Your task to perform on an android device: empty trash in the gmail app Image 0: 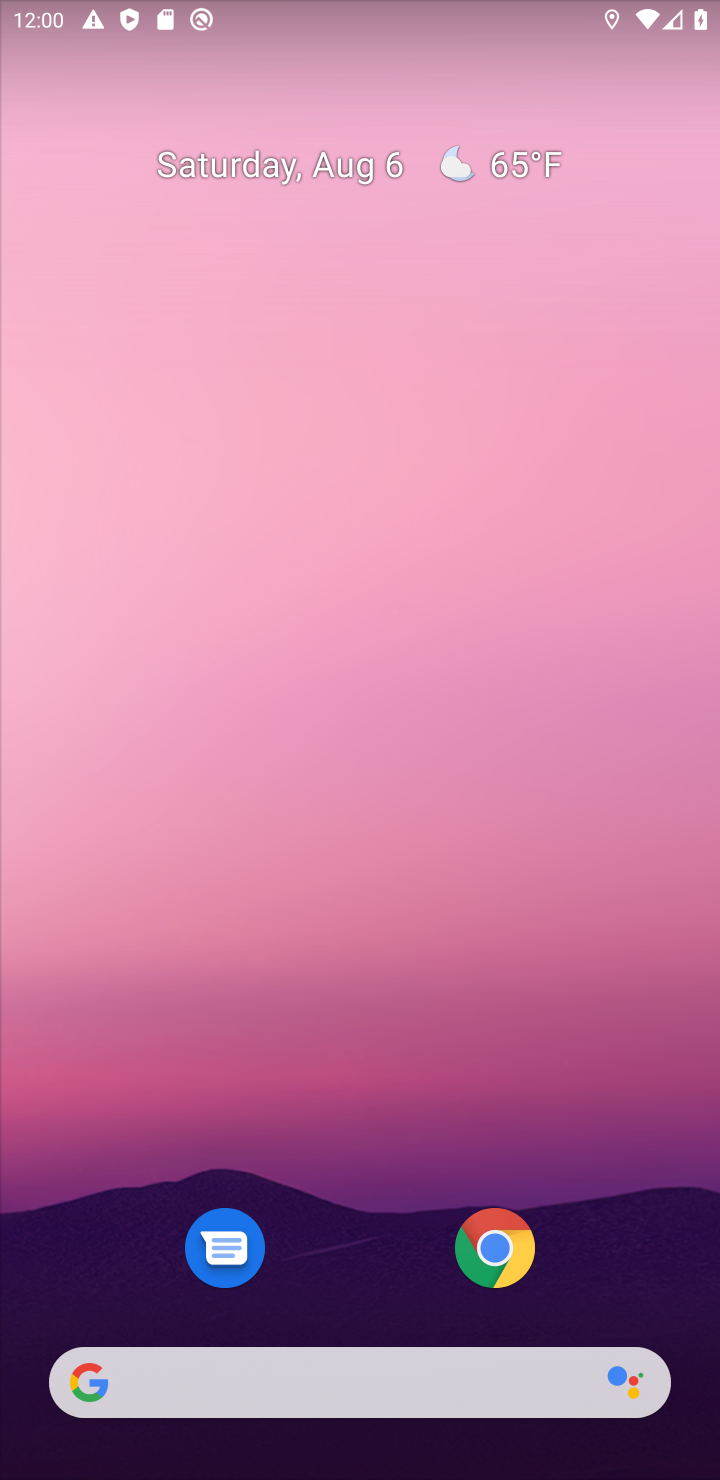
Step 0: drag from (363, 1294) to (463, 207)
Your task to perform on an android device: empty trash in the gmail app Image 1: 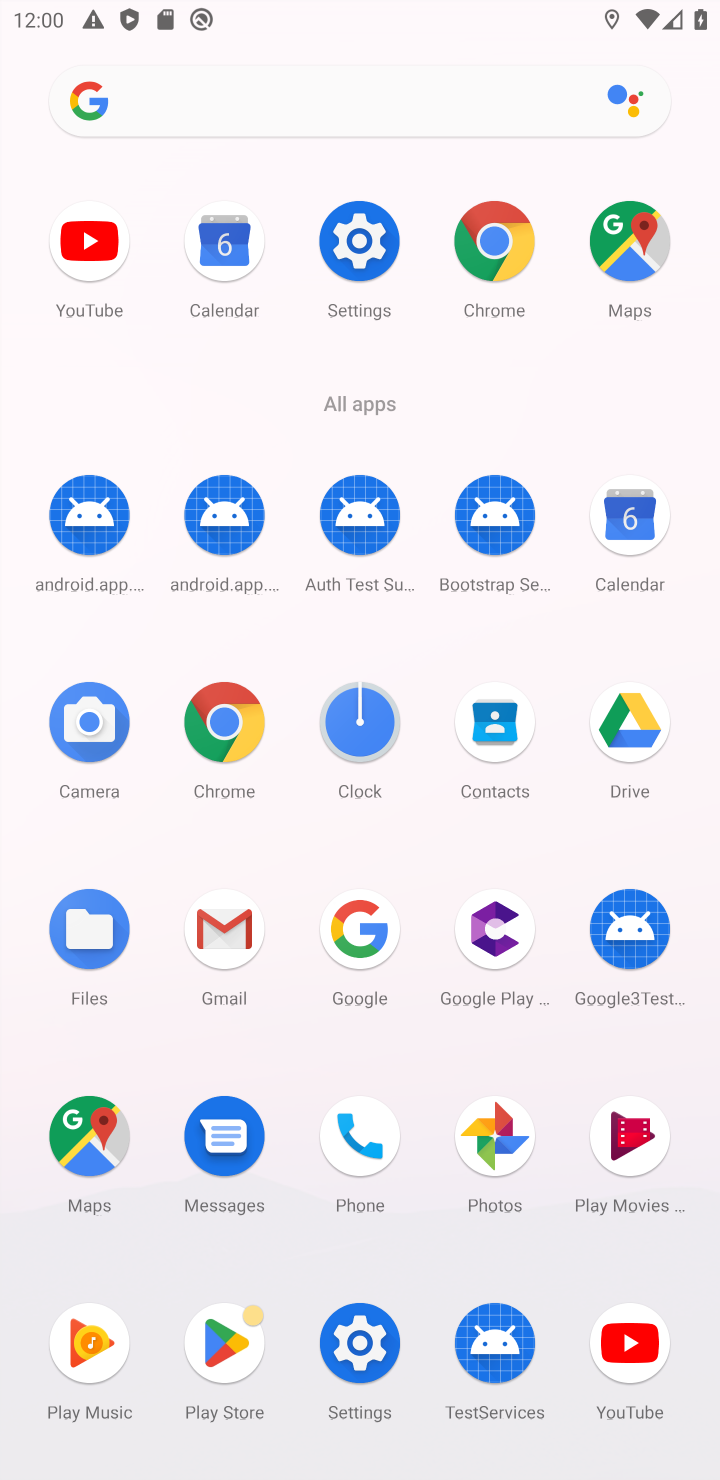
Step 1: click (217, 915)
Your task to perform on an android device: empty trash in the gmail app Image 2: 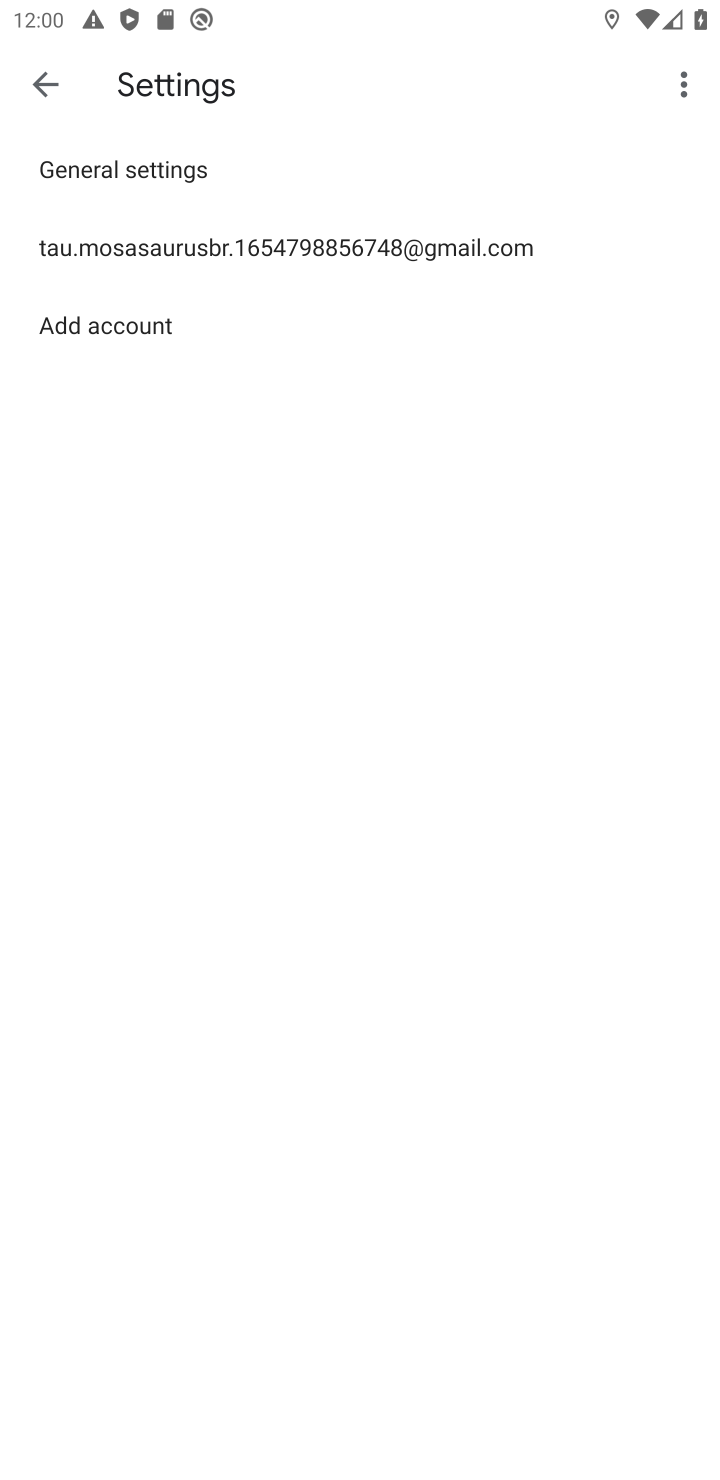
Step 2: click (50, 83)
Your task to perform on an android device: empty trash in the gmail app Image 3: 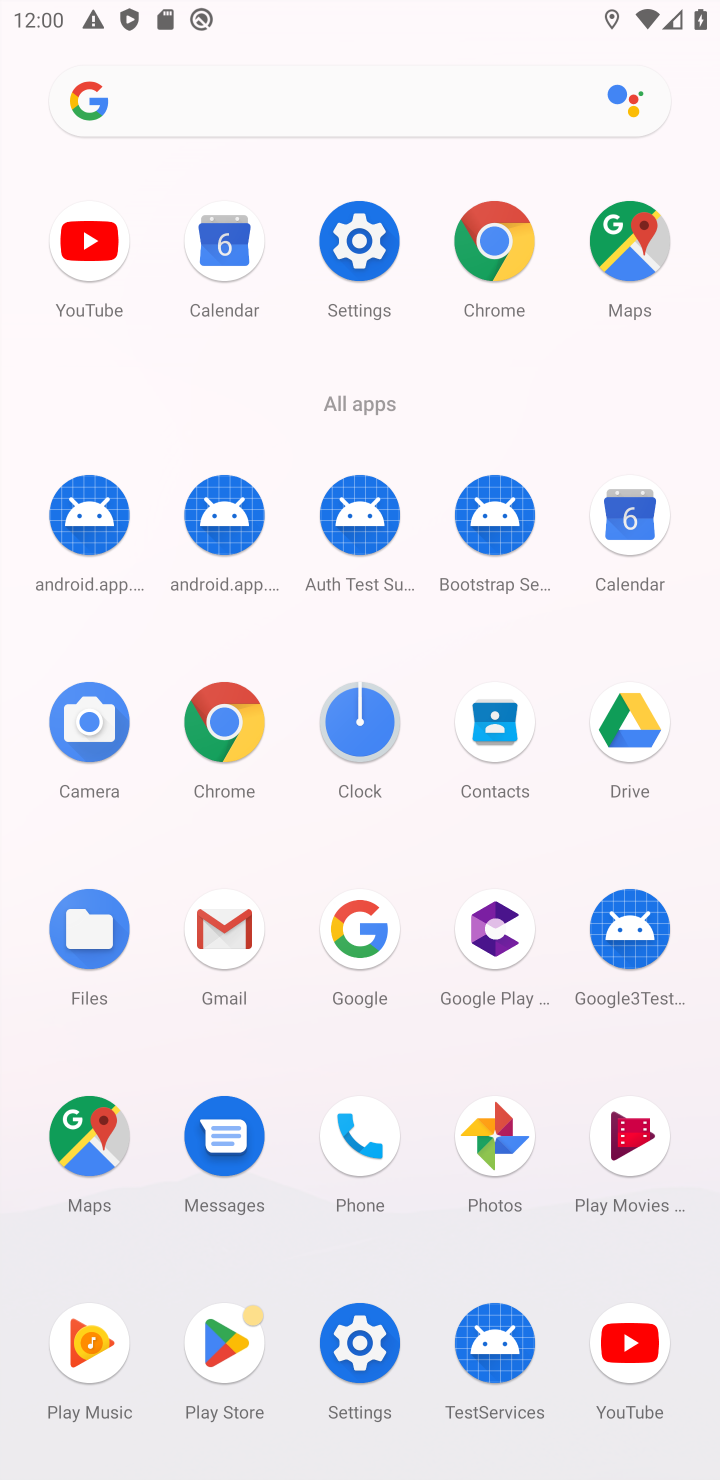
Step 3: click (205, 939)
Your task to perform on an android device: empty trash in the gmail app Image 4: 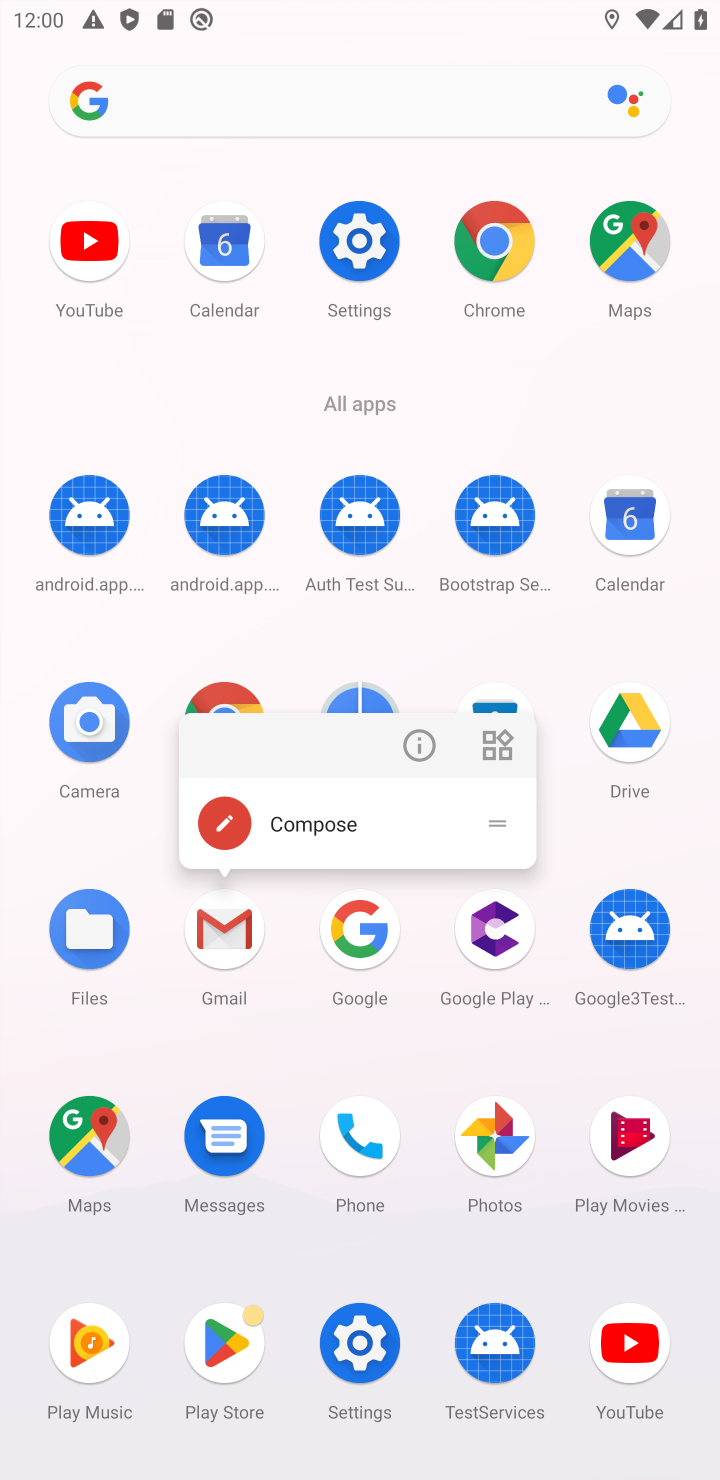
Step 4: click (225, 927)
Your task to perform on an android device: empty trash in the gmail app Image 5: 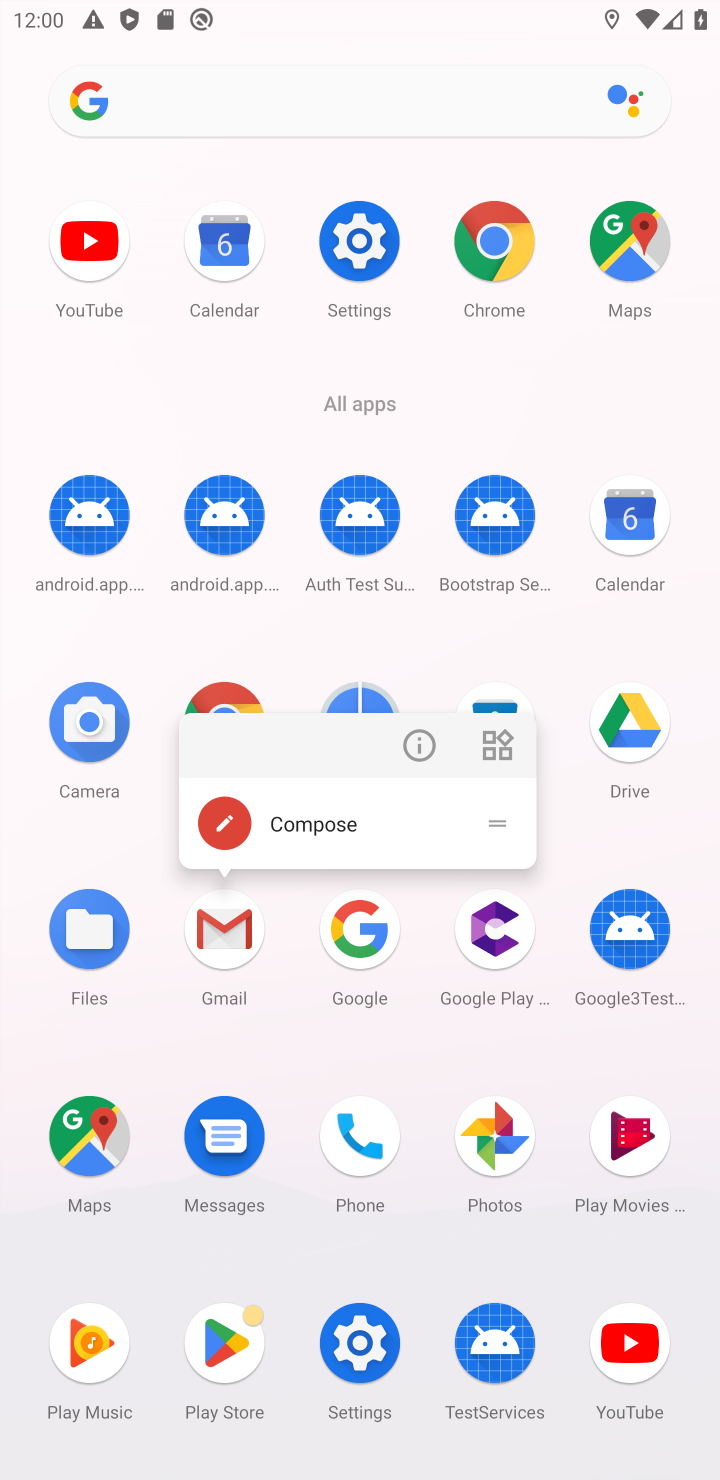
Step 5: click (225, 927)
Your task to perform on an android device: empty trash in the gmail app Image 6: 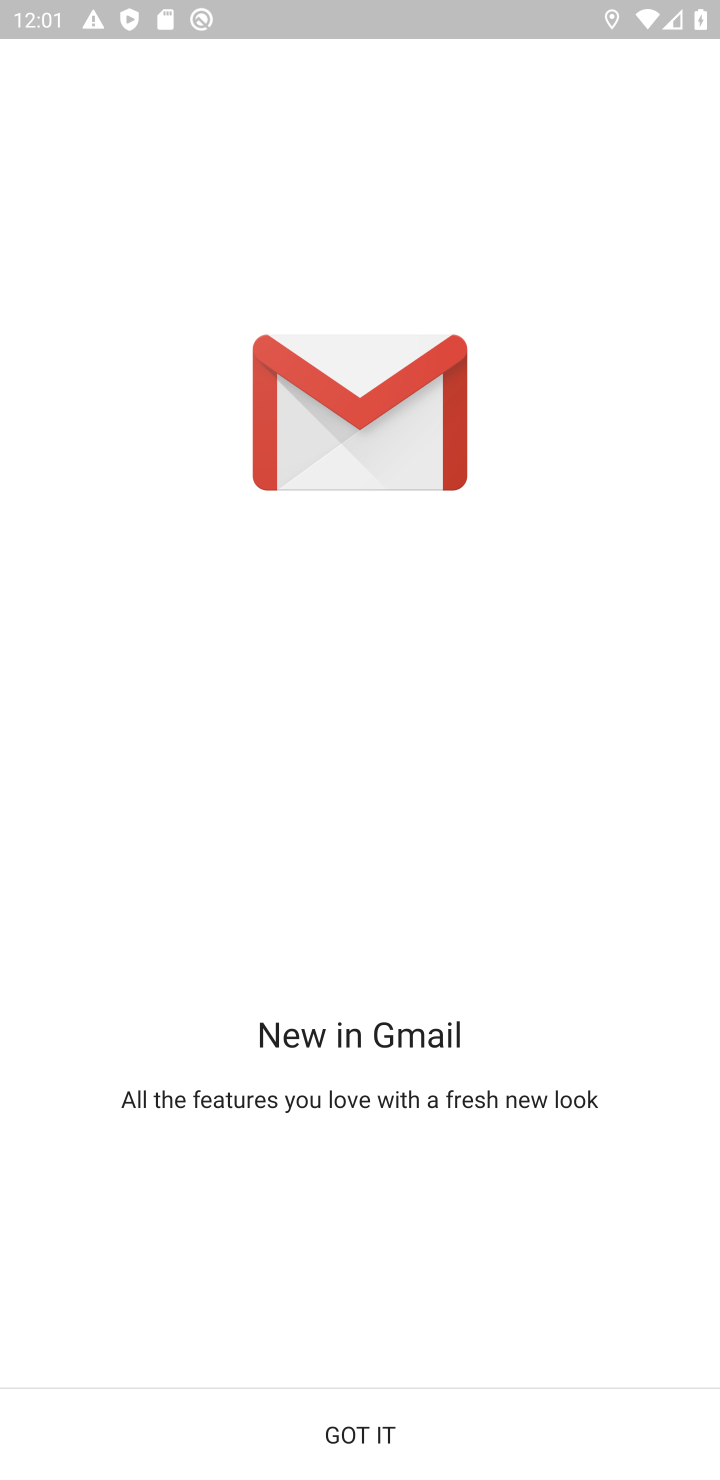
Step 6: click (362, 1423)
Your task to perform on an android device: empty trash in the gmail app Image 7: 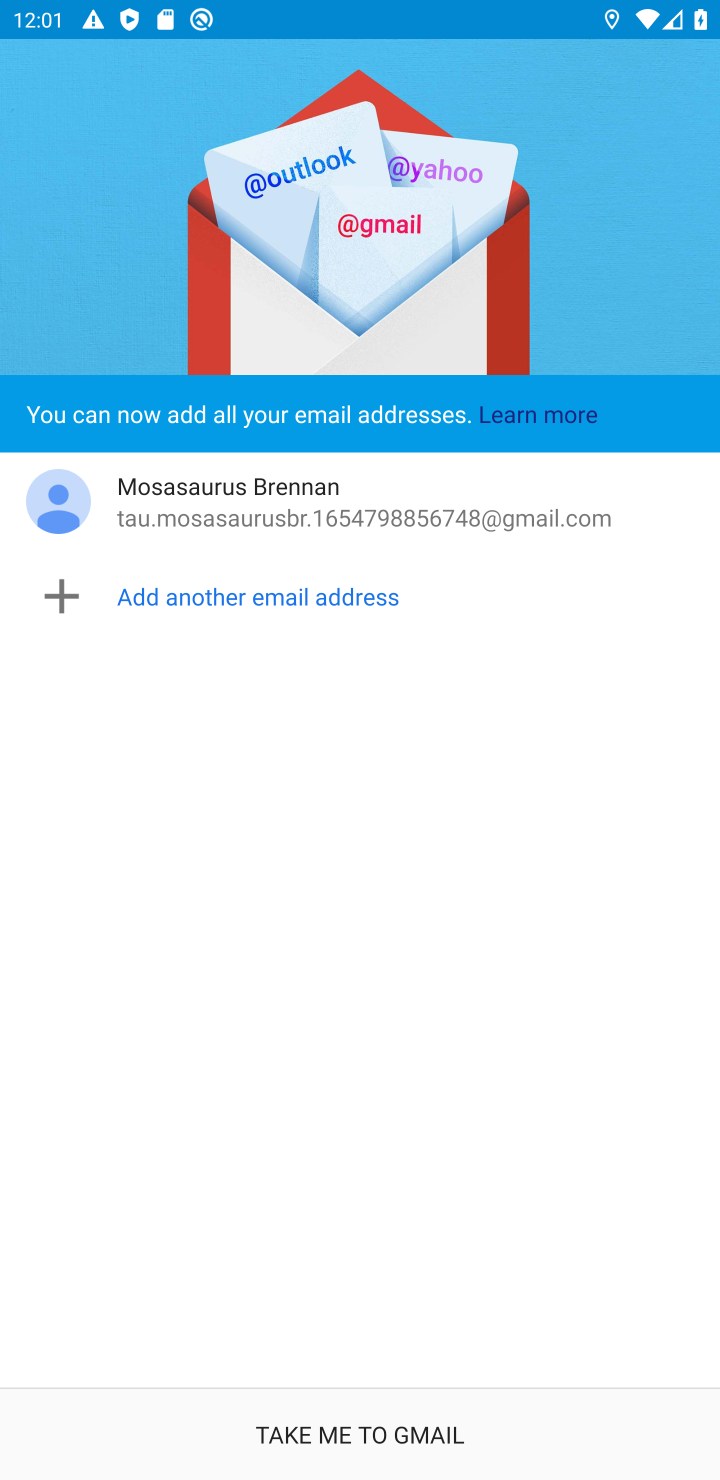
Step 7: click (357, 1426)
Your task to perform on an android device: empty trash in the gmail app Image 8: 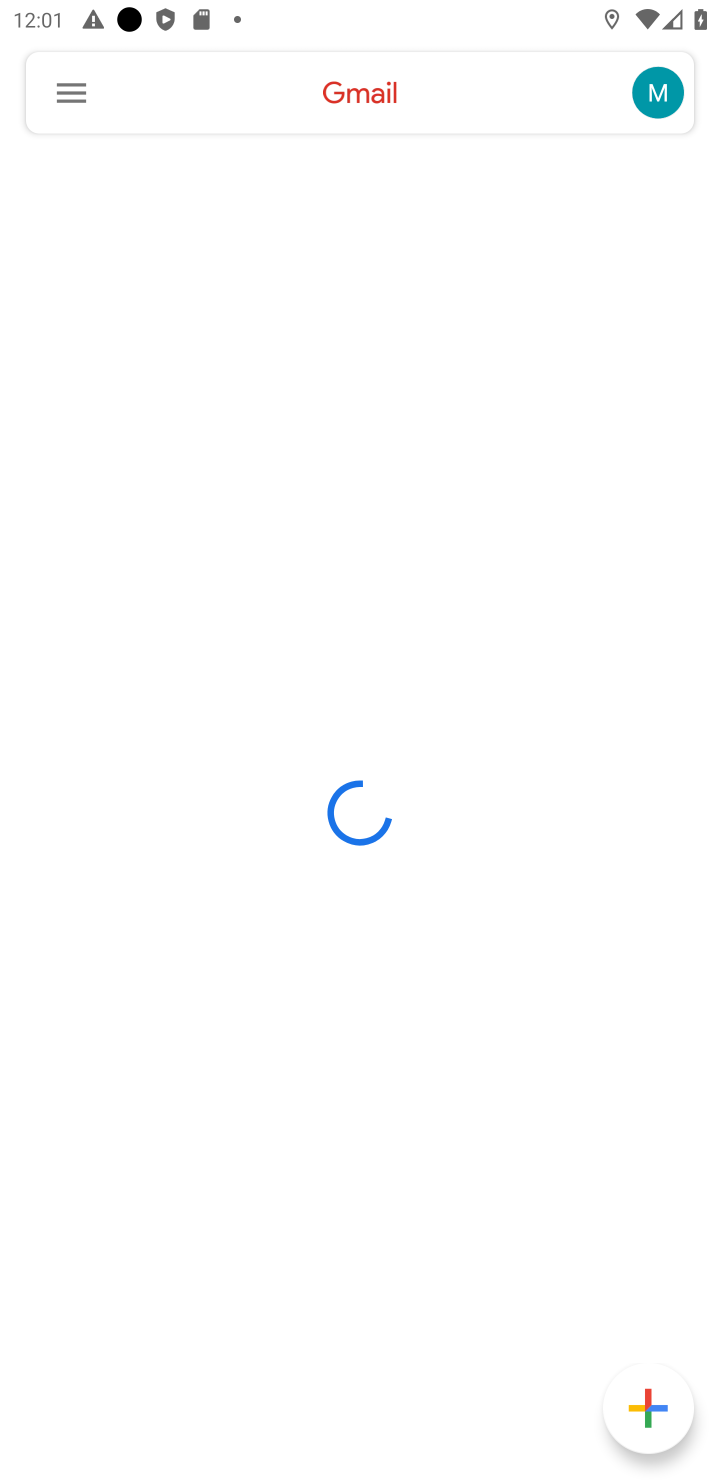
Step 8: click (65, 95)
Your task to perform on an android device: empty trash in the gmail app Image 9: 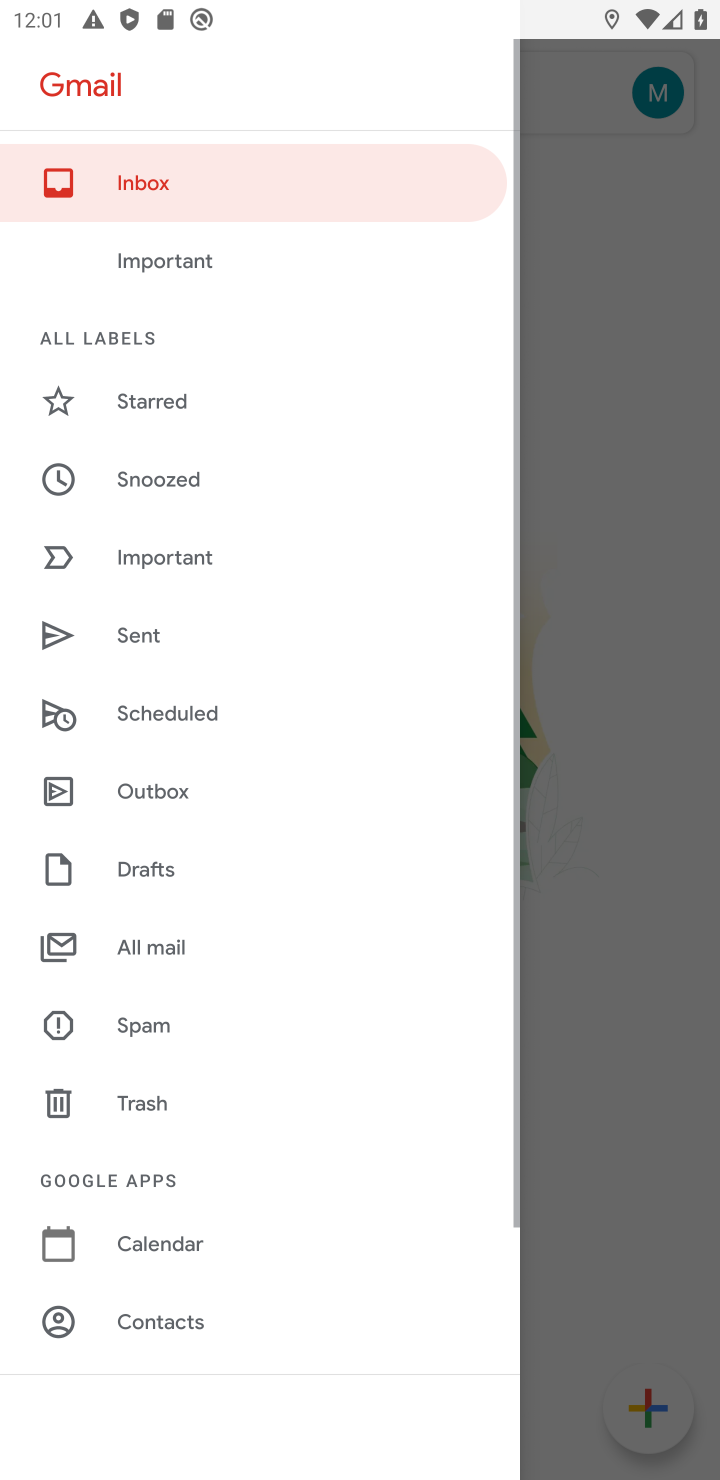
Step 9: click (87, 1094)
Your task to perform on an android device: empty trash in the gmail app Image 10: 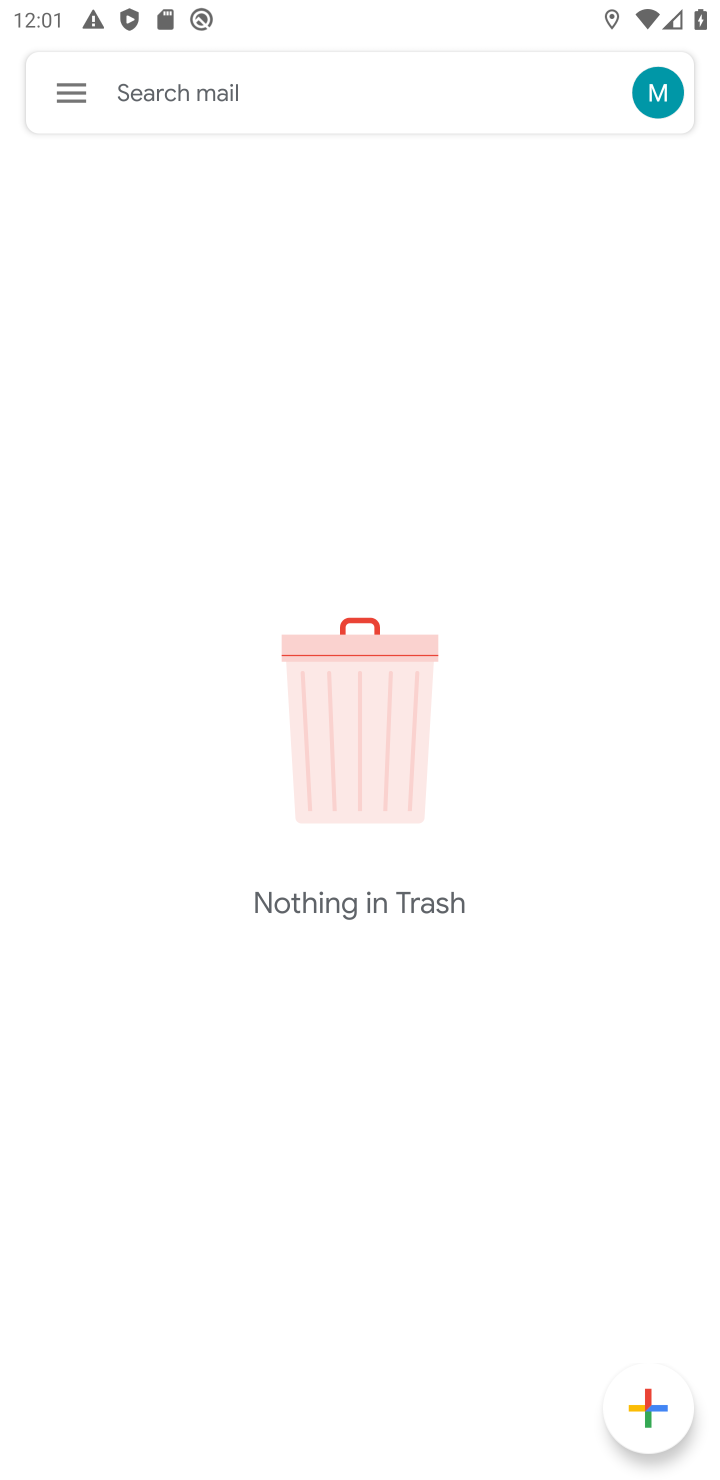
Step 10: task complete